Your task to perform on an android device: Open Wikipedia Image 0: 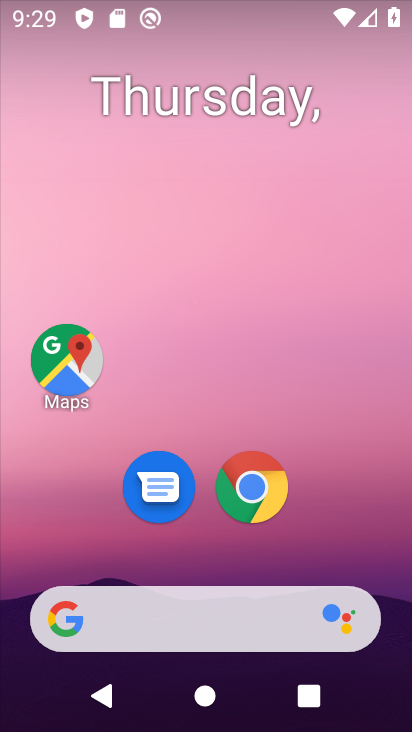
Step 0: click (256, 480)
Your task to perform on an android device: Open Wikipedia Image 1: 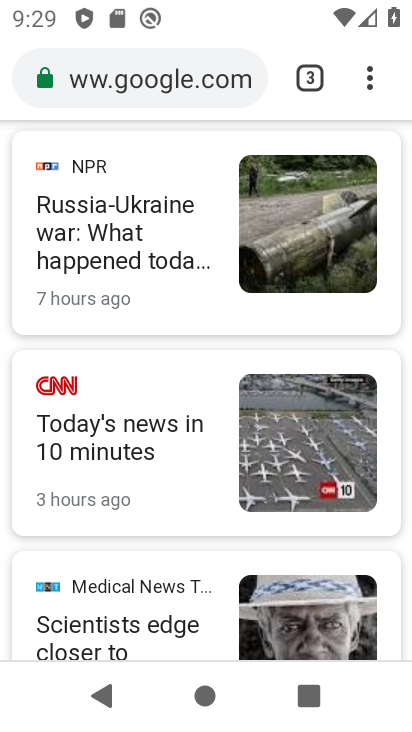
Step 1: click (313, 79)
Your task to perform on an android device: Open Wikipedia Image 2: 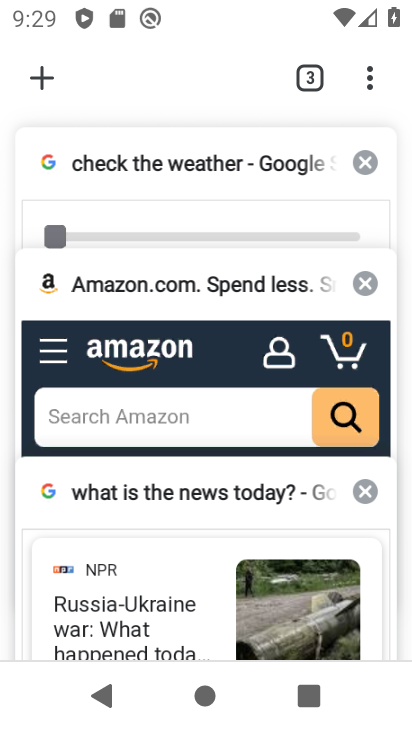
Step 2: click (44, 76)
Your task to perform on an android device: Open Wikipedia Image 3: 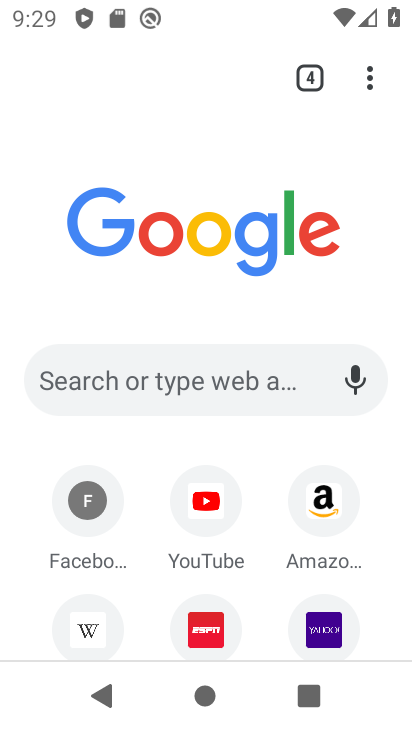
Step 3: click (87, 626)
Your task to perform on an android device: Open Wikipedia Image 4: 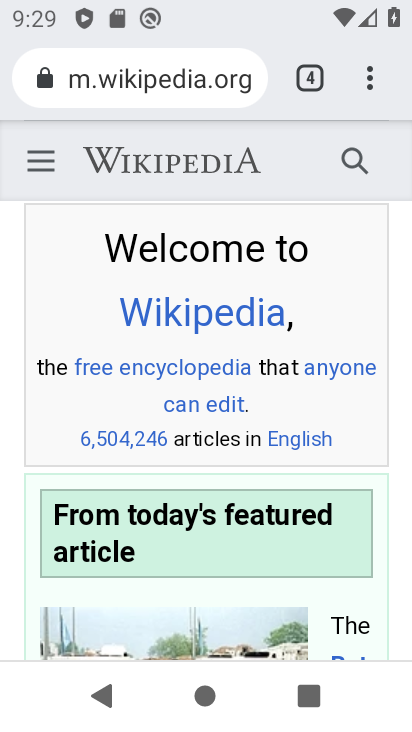
Step 4: task complete